Your task to perform on an android device: Go to Google Image 0: 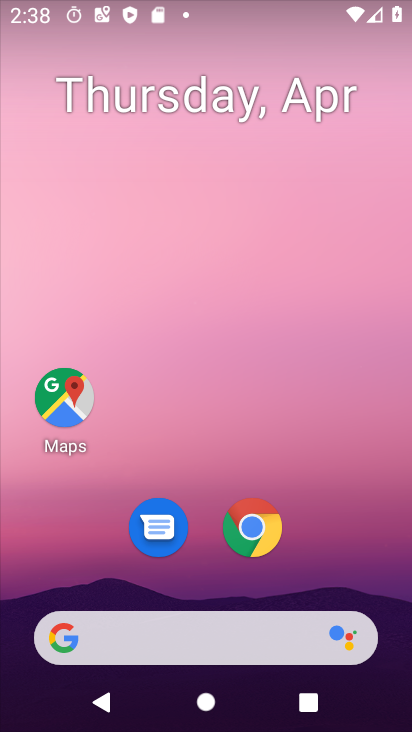
Step 0: drag from (347, 270) to (342, 161)
Your task to perform on an android device: Go to Google Image 1: 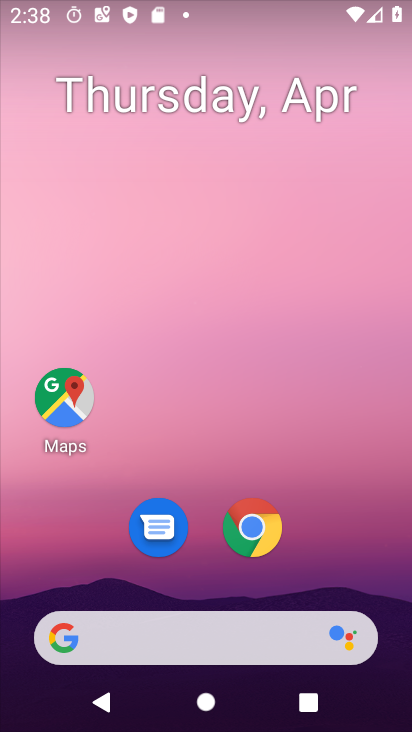
Step 1: drag from (323, 414) to (339, 121)
Your task to perform on an android device: Go to Google Image 2: 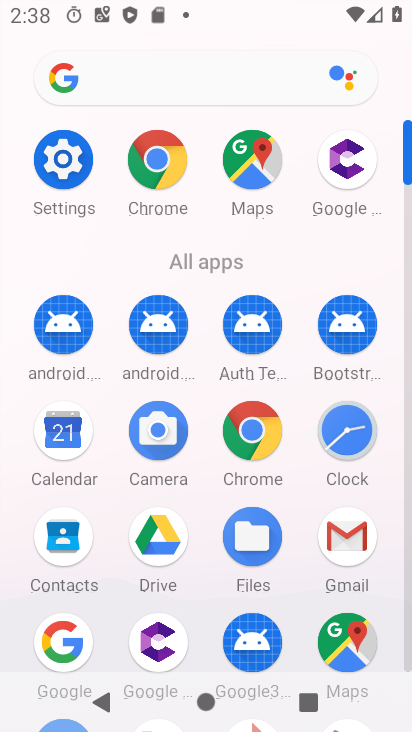
Step 2: click (66, 641)
Your task to perform on an android device: Go to Google Image 3: 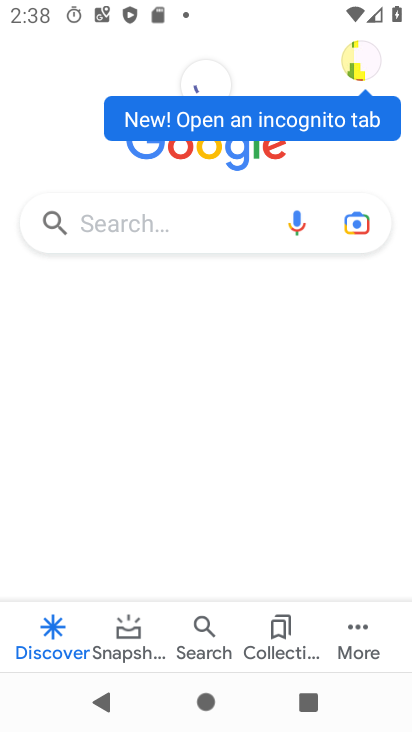
Step 3: task complete